Your task to perform on an android device: install app "Google Translate" Image 0: 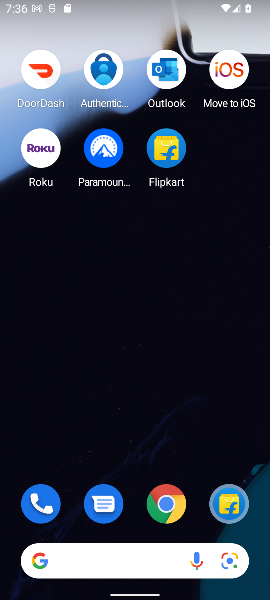
Step 0: drag from (121, 548) to (145, 20)
Your task to perform on an android device: install app "Google Translate" Image 1: 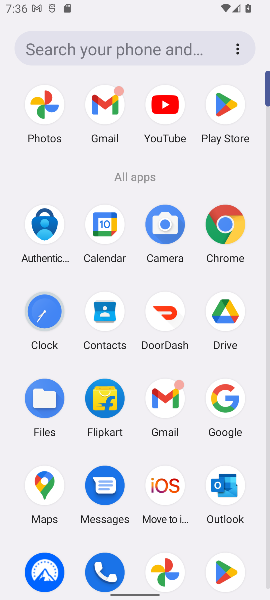
Step 1: click (230, 113)
Your task to perform on an android device: install app "Google Translate" Image 2: 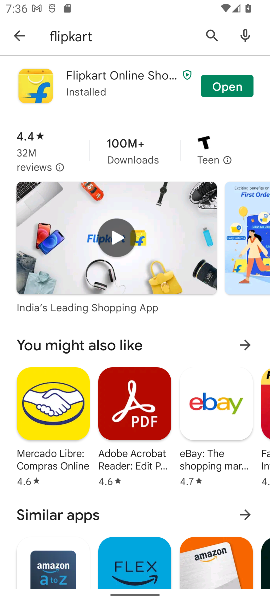
Step 2: click (209, 33)
Your task to perform on an android device: install app "Google Translate" Image 3: 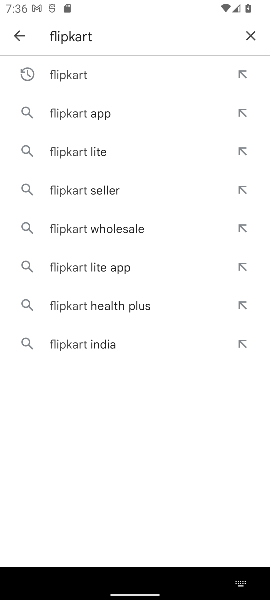
Step 3: click (247, 38)
Your task to perform on an android device: install app "Google Translate" Image 4: 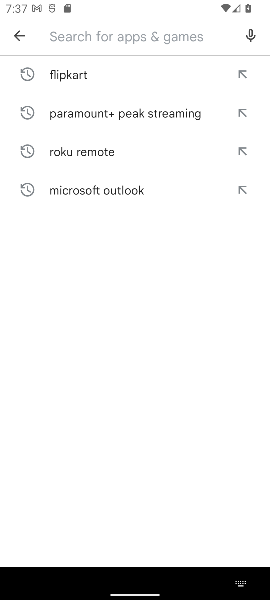
Step 4: type "google translate"
Your task to perform on an android device: install app "Google Translate" Image 5: 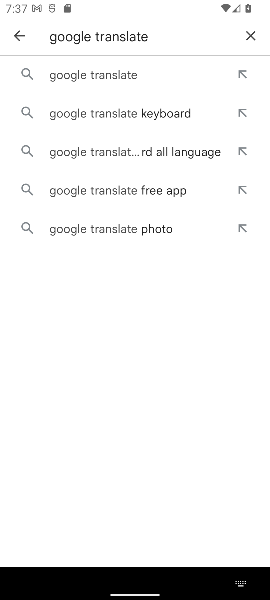
Step 5: click (61, 66)
Your task to perform on an android device: install app "Google Translate" Image 6: 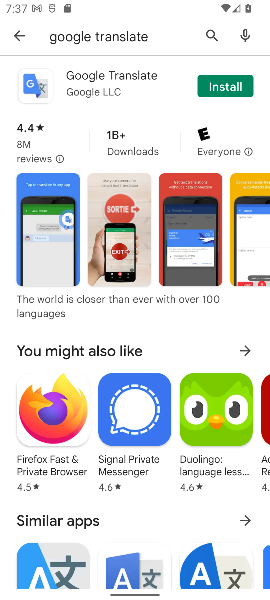
Step 6: click (213, 83)
Your task to perform on an android device: install app "Google Translate" Image 7: 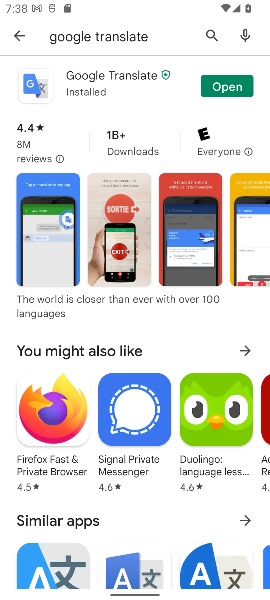
Step 7: task complete